Your task to perform on an android device: install app "Google Find My Device" Image 0: 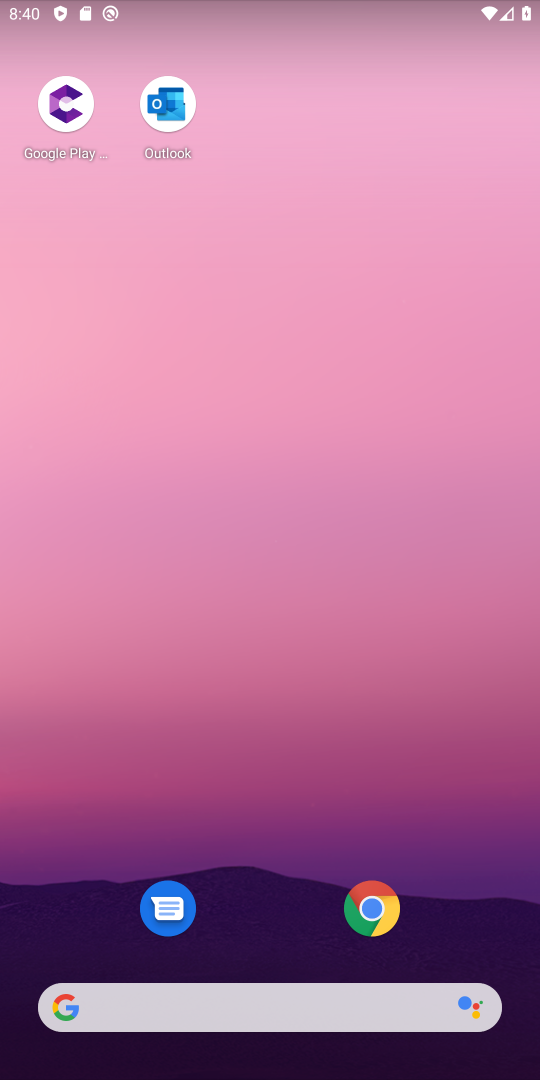
Step 0: drag from (244, 783) to (250, 0)
Your task to perform on an android device: install app "Google Find My Device" Image 1: 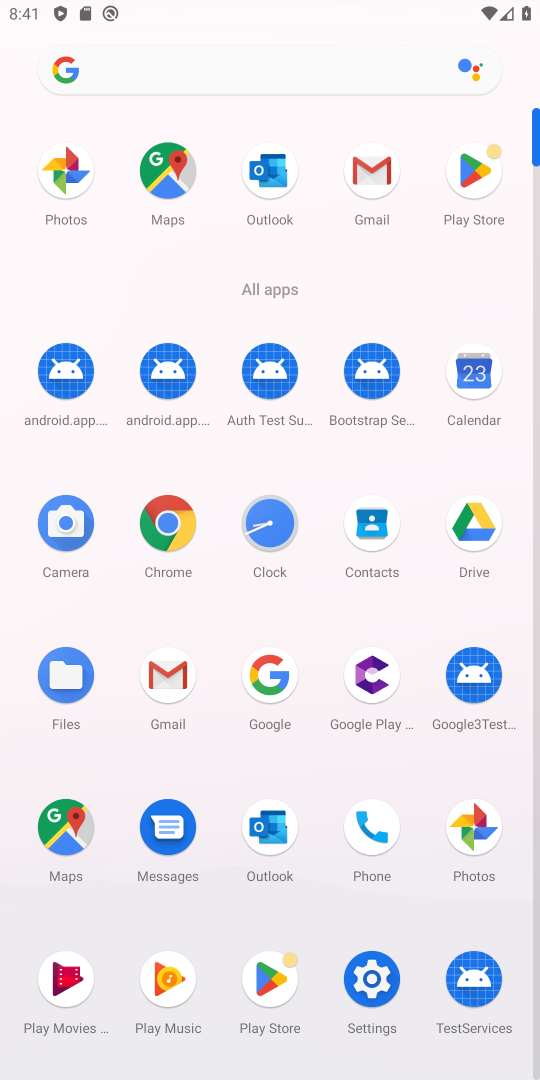
Step 1: click (481, 191)
Your task to perform on an android device: install app "Google Find My Device" Image 2: 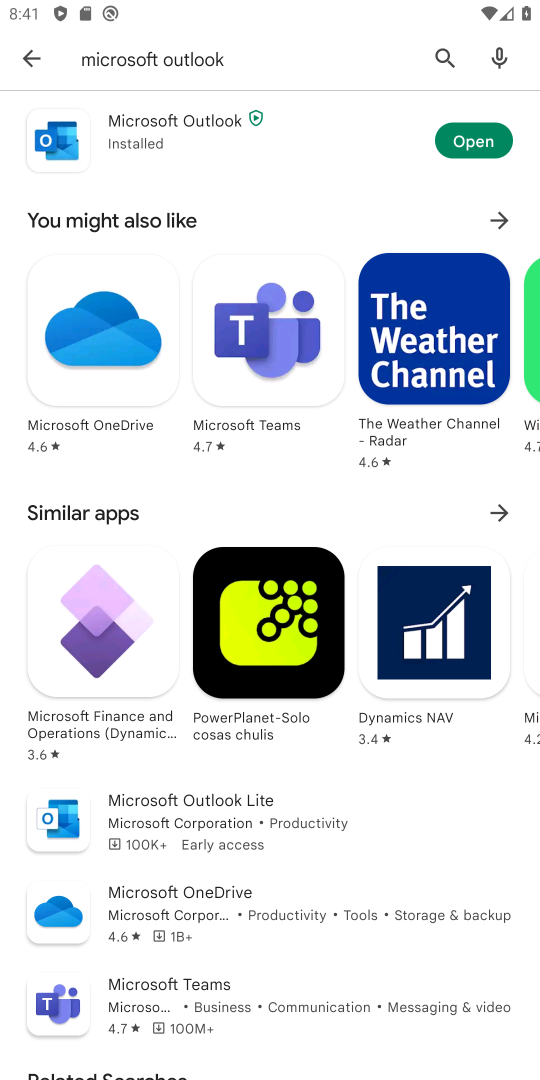
Step 2: click (264, 61)
Your task to perform on an android device: install app "Google Find My Device" Image 3: 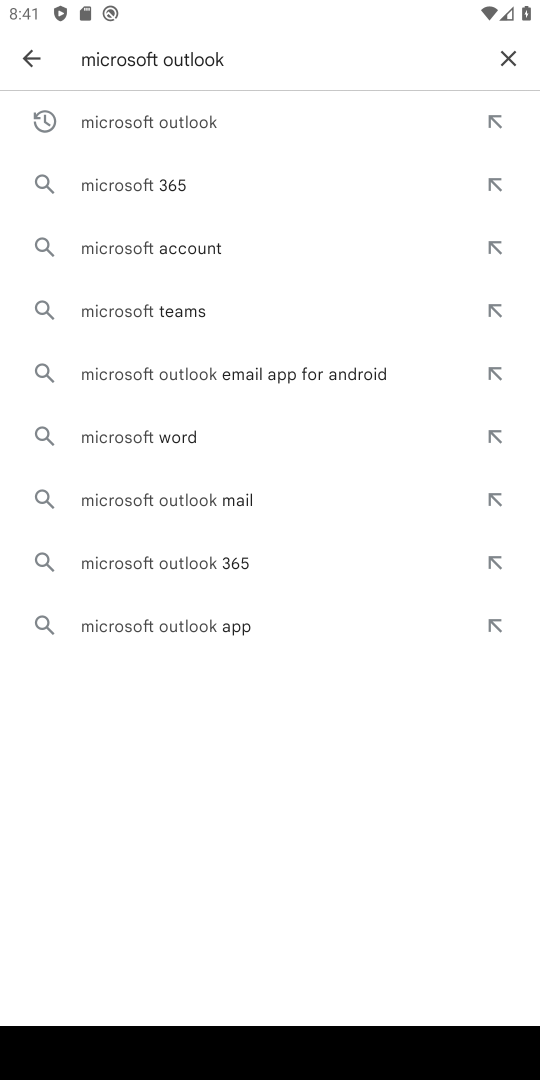
Step 3: click (505, 59)
Your task to perform on an android device: install app "Google Find My Device" Image 4: 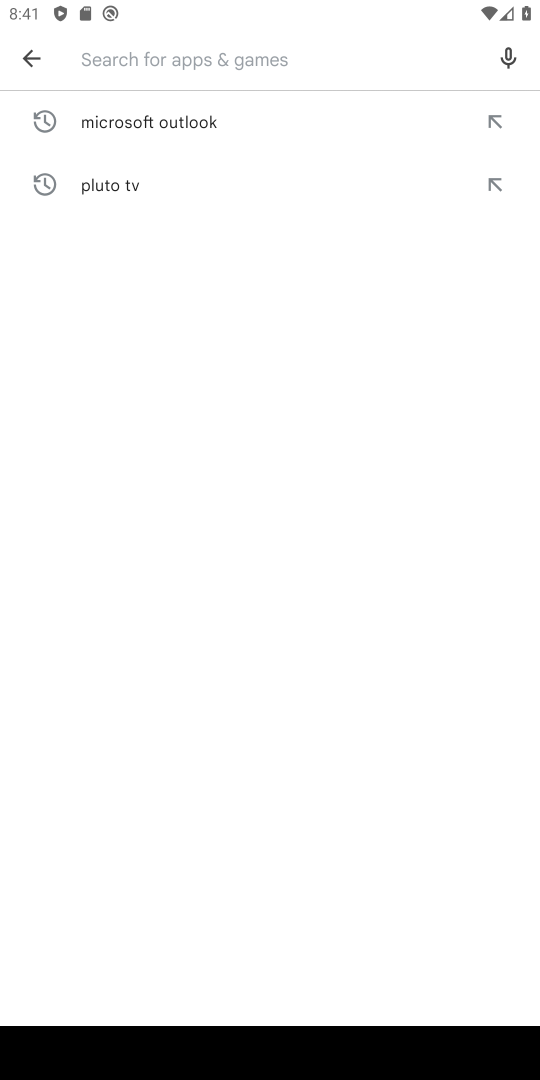
Step 4: type "google find my device"
Your task to perform on an android device: install app "Google Find My Device" Image 5: 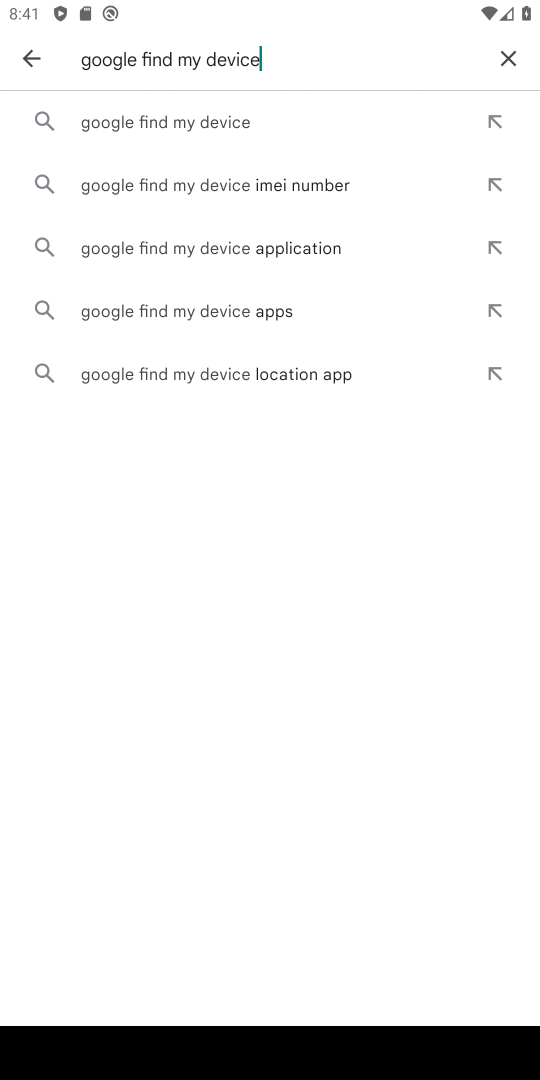
Step 5: click (136, 116)
Your task to perform on an android device: install app "Google Find My Device" Image 6: 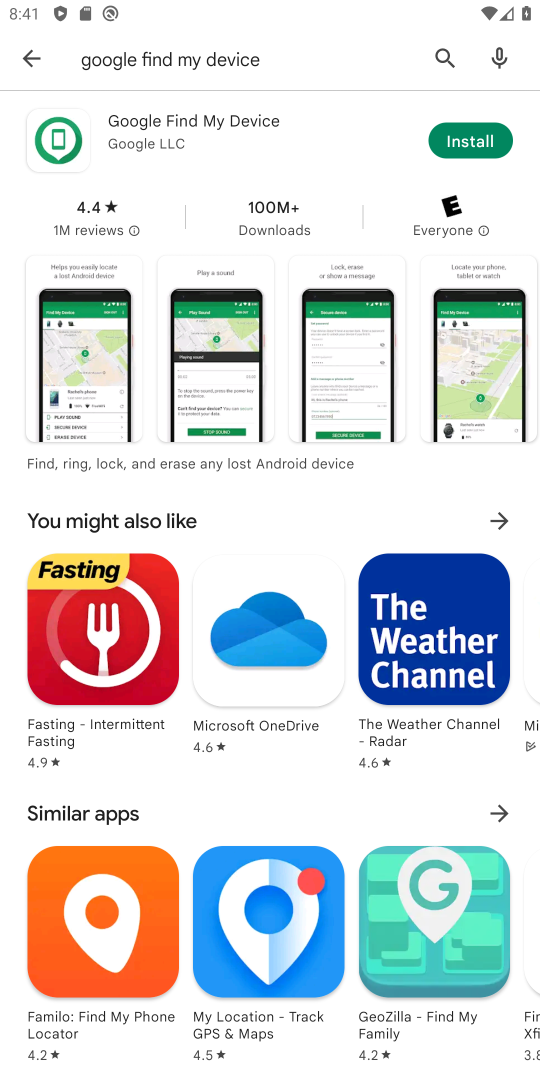
Step 6: click (465, 134)
Your task to perform on an android device: install app "Google Find My Device" Image 7: 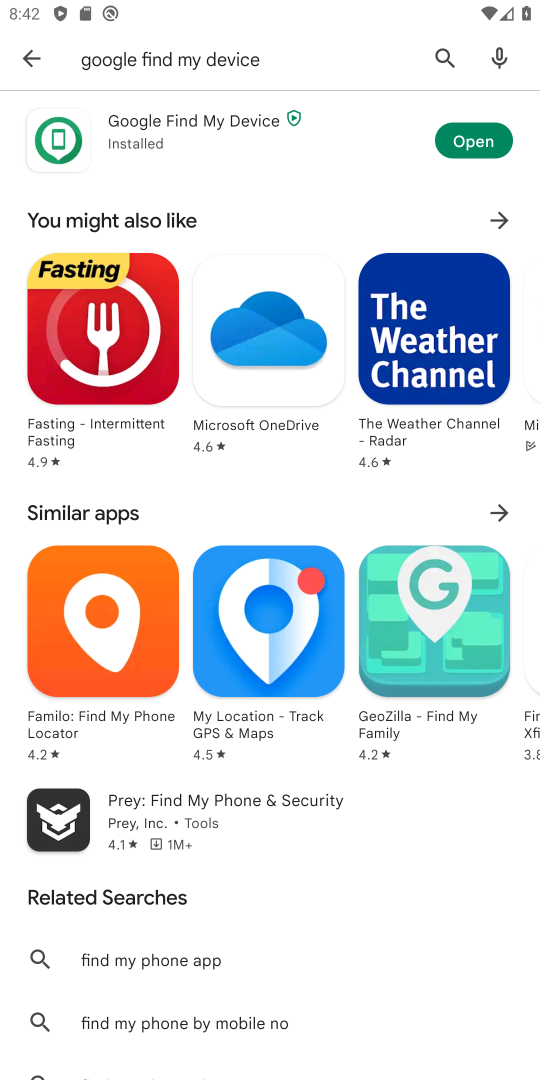
Step 7: task complete